Your task to perform on an android device: turn pop-ups off in chrome Image 0: 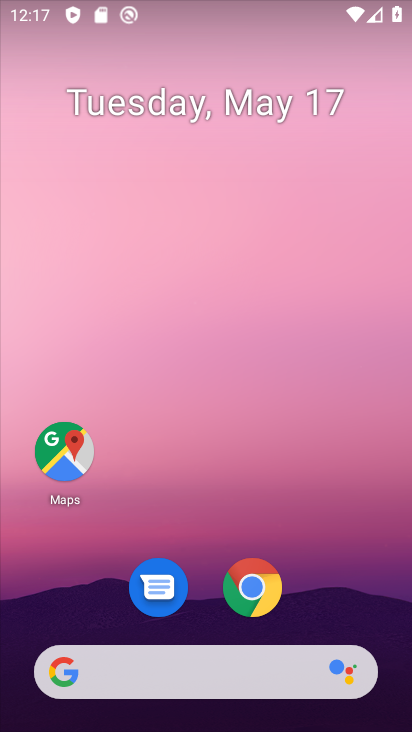
Step 0: drag from (192, 628) to (117, 61)
Your task to perform on an android device: turn pop-ups off in chrome Image 1: 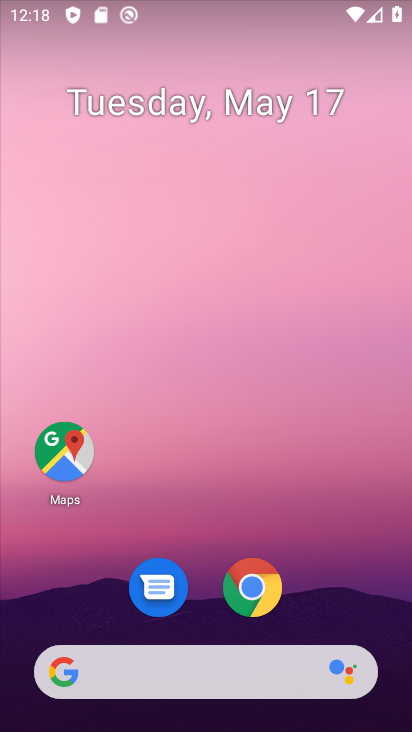
Step 1: drag from (197, 638) to (108, 55)
Your task to perform on an android device: turn pop-ups off in chrome Image 2: 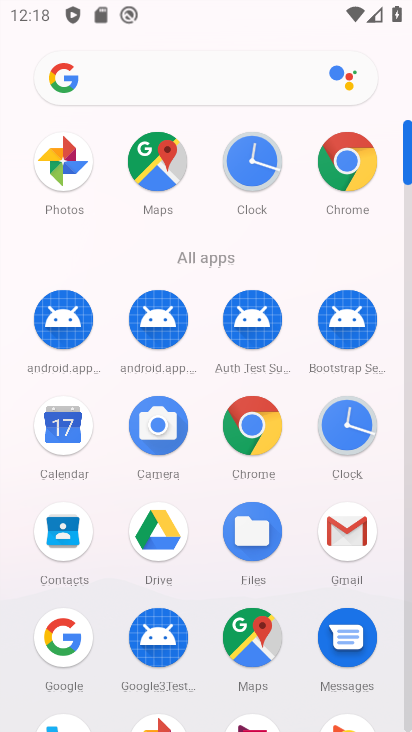
Step 2: click (264, 424)
Your task to perform on an android device: turn pop-ups off in chrome Image 3: 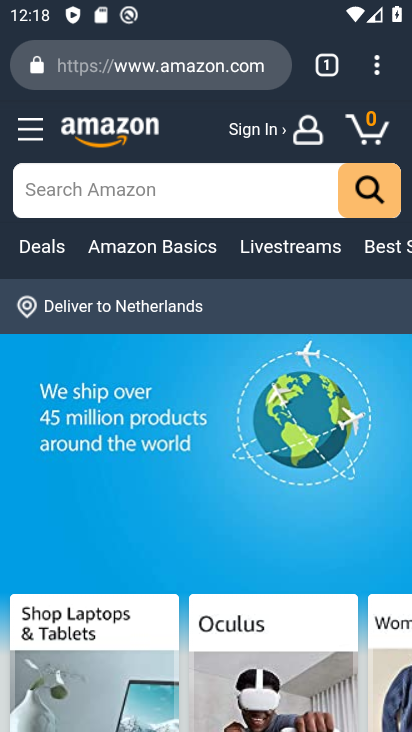
Step 3: click (373, 59)
Your task to perform on an android device: turn pop-ups off in chrome Image 4: 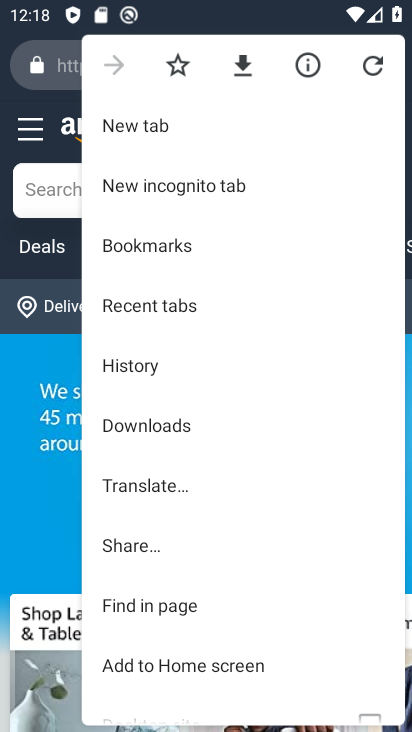
Step 4: drag from (225, 614) to (164, 186)
Your task to perform on an android device: turn pop-ups off in chrome Image 5: 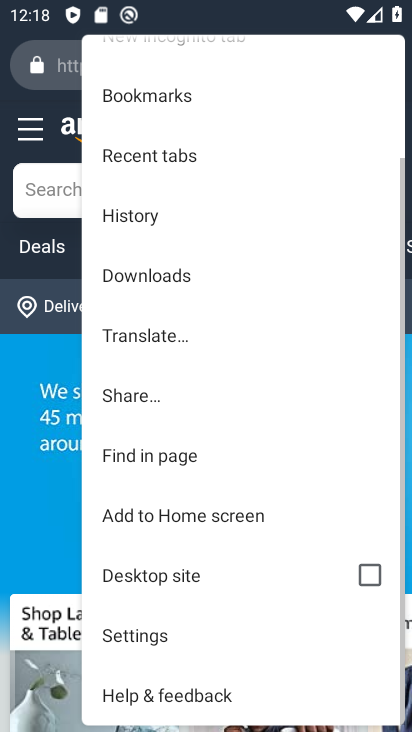
Step 5: click (133, 645)
Your task to perform on an android device: turn pop-ups off in chrome Image 6: 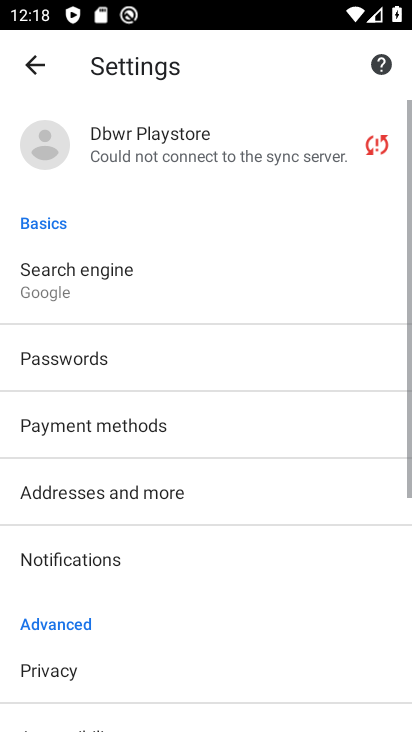
Step 6: drag from (133, 644) to (86, 215)
Your task to perform on an android device: turn pop-ups off in chrome Image 7: 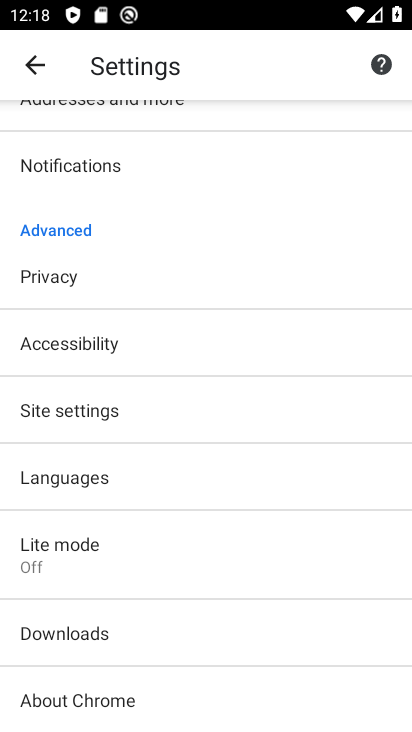
Step 7: click (66, 412)
Your task to perform on an android device: turn pop-ups off in chrome Image 8: 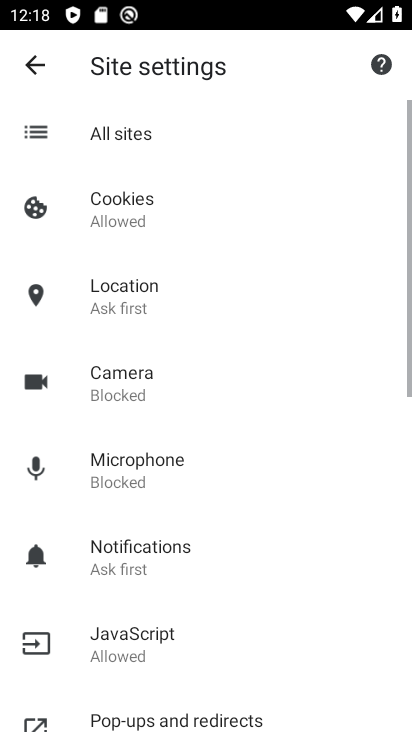
Step 8: drag from (140, 599) to (115, 308)
Your task to perform on an android device: turn pop-ups off in chrome Image 9: 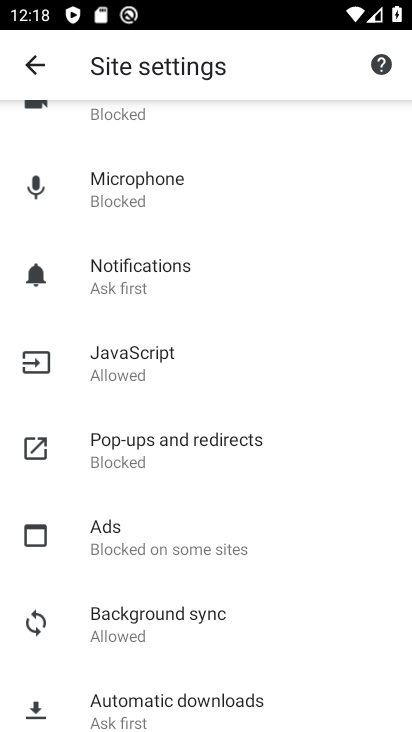
Step 9: click (117, 446)
Your task to perform on an android device: turn pop-ups off in chrome Image 10: 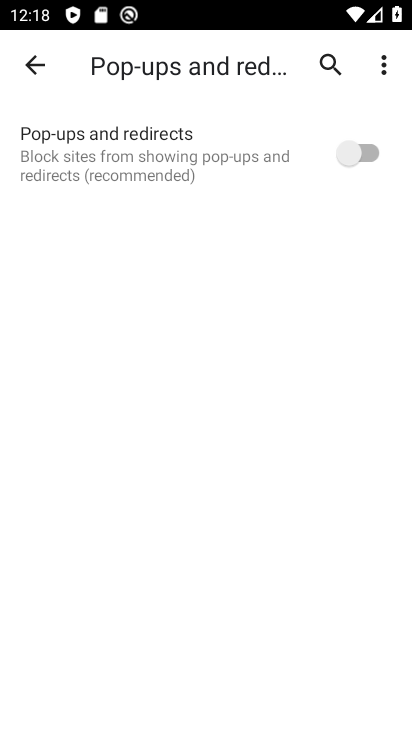
Step 10: task complete